Your task to perform on an android device: open chrome and create a bookmark for the current page Image 0: 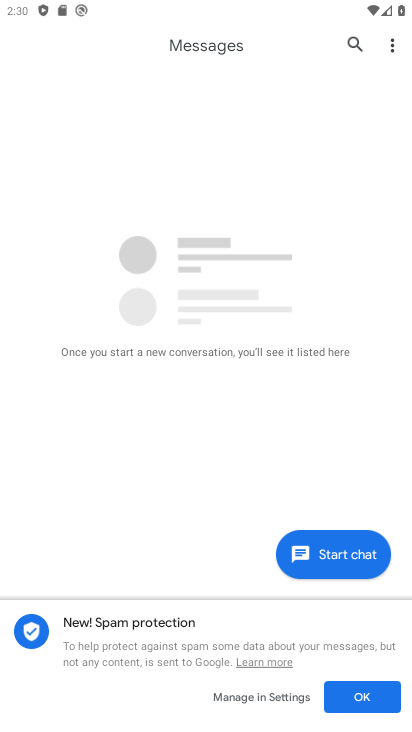
Step 0: press back button
Your task to perform on an android device: open chrome and create a bookmark for the current page Image 1: 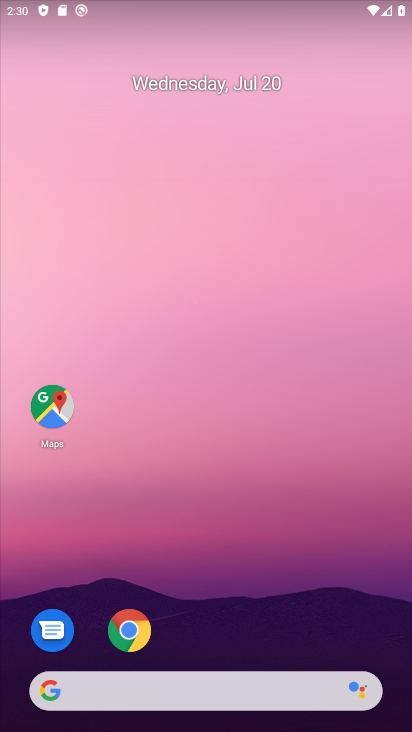
Step 1: drag from (248, 656) to (245, 212)
Your task to perform on an android device: open chrome and create a bookmark for the current page Image 2: 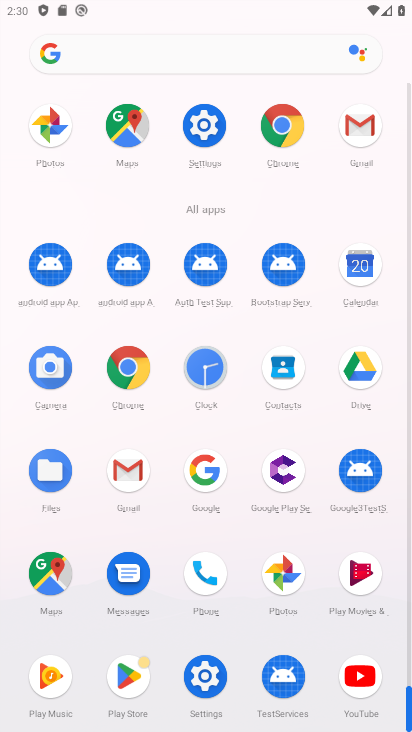
Step 2: click (283, 134)
Your task to perform on an android device: open chrome and create a bookmark for the current page Image 3: 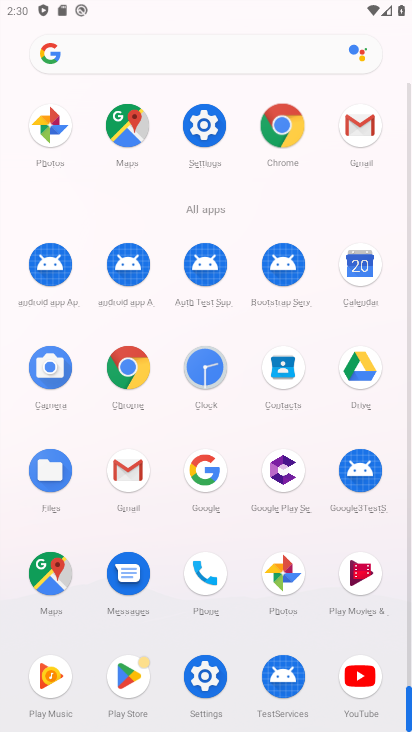
Step 3: click (283, 133)
Your task to perform on an android device: open chrome and create a bookmark for the current page Image 4: 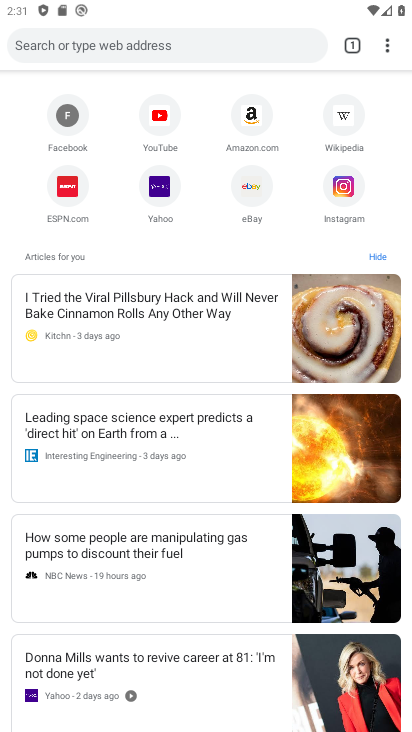
Step 4: drag from (388, 45) to (250, 45)
Your task to perform on an android device: open chrome and create a bookmark for the current page Image 5: 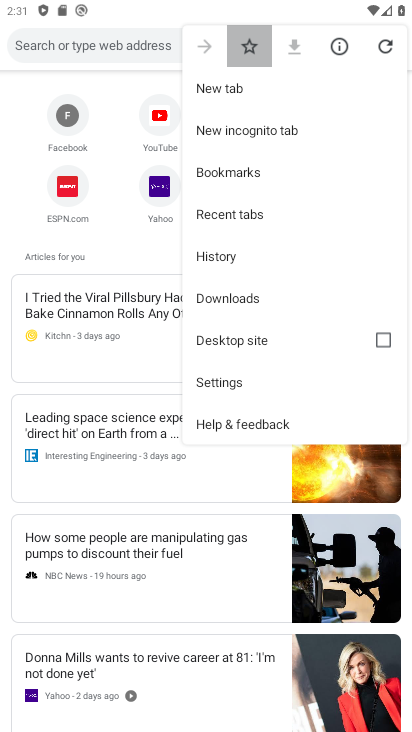
Step 5: click (253, 45)
Your task to perform on an android device: open chrome and create a bookmark for the current page Image 6: 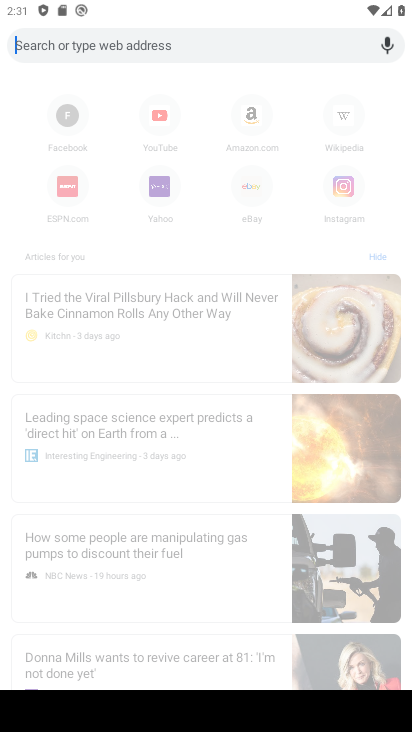
Step 6: task complete